Your task to perform on an android device: Turn on the flashlight Image 0: 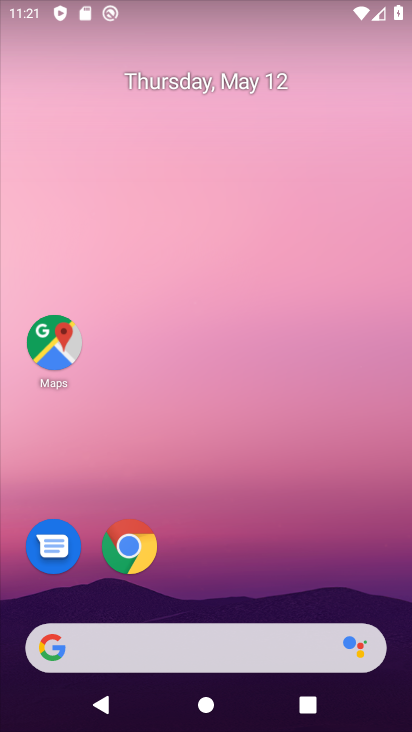
Step 0: drag from (233, 683) to (222, 88)
Your task to perform on an android device: Turn on the flashlight Image 1: 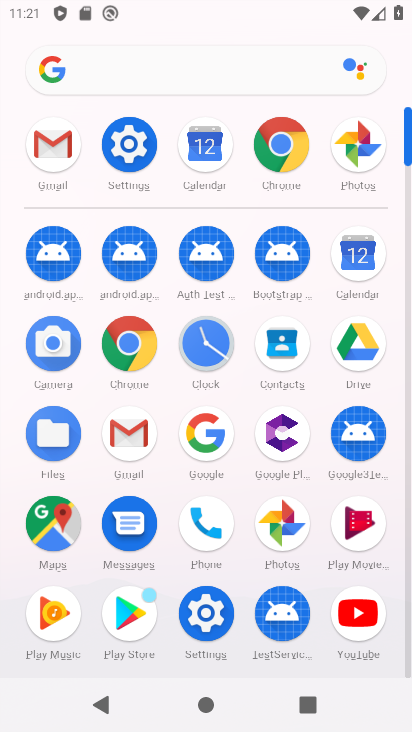
Step 1: click (126, 141)
Your task to perform on an android device: Turn on the flashlight Image 2: 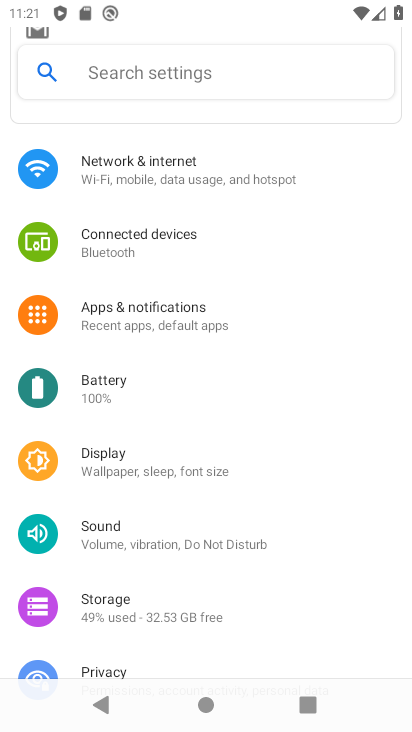
Step 2: task complete